Your task to perform on an android device: Open Yahoo.com Image 0: 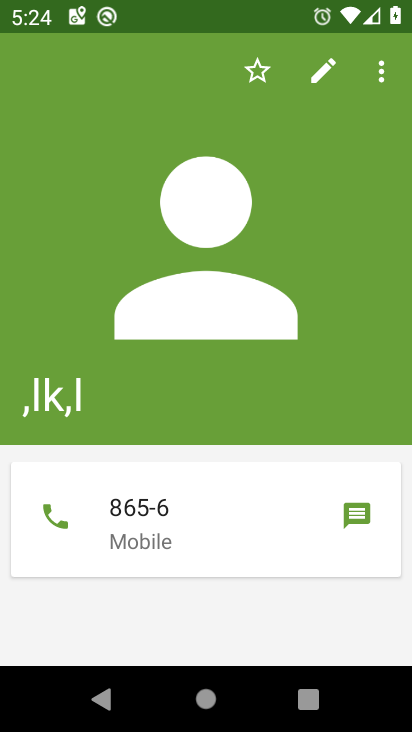
Step 0: press home button
Your task to perform on an android device: Open Yahoo.com Image 1: 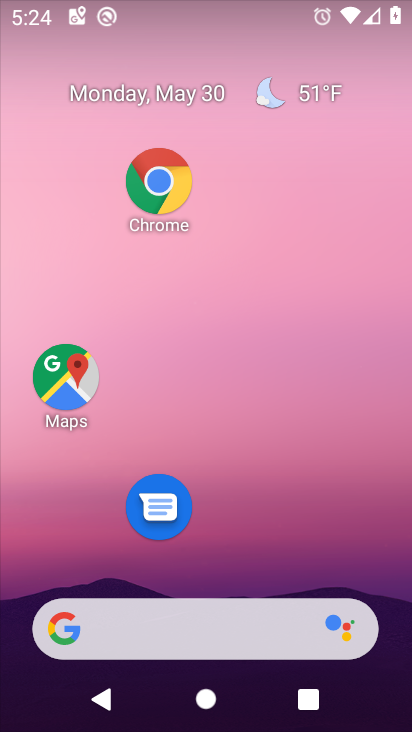
Step 1: drag from (262, 507) to (231, 61)
Your task to perform on an android device: Open Yahoo.com Image 2: 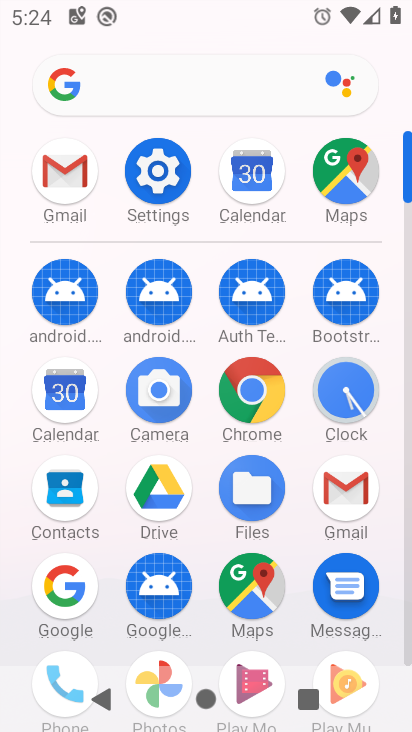
Step 2: click (227, 406)
Your task to perform on an android device: Open Yahoo.com Image 3: 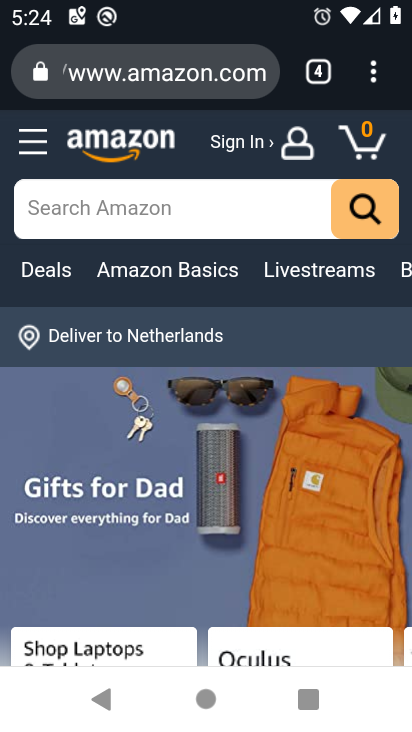
Step 3: click (199, 71)
Your task to perform on an android device: Open Yahoo.com Image 4: 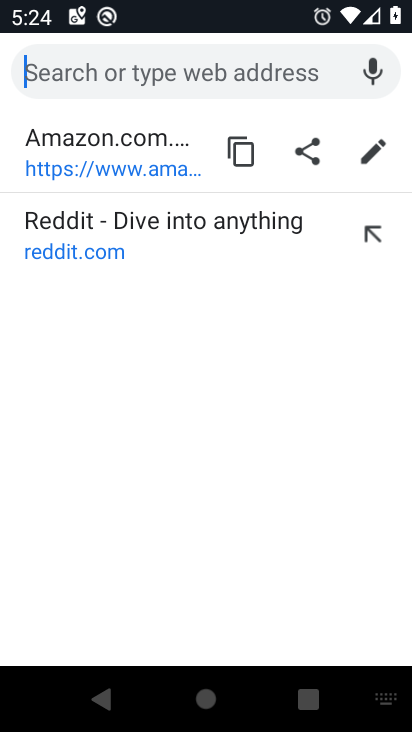
Step 4: type " Yahoo.com"
Your task to perform on an android device: Open Yahoo.com Image 5: 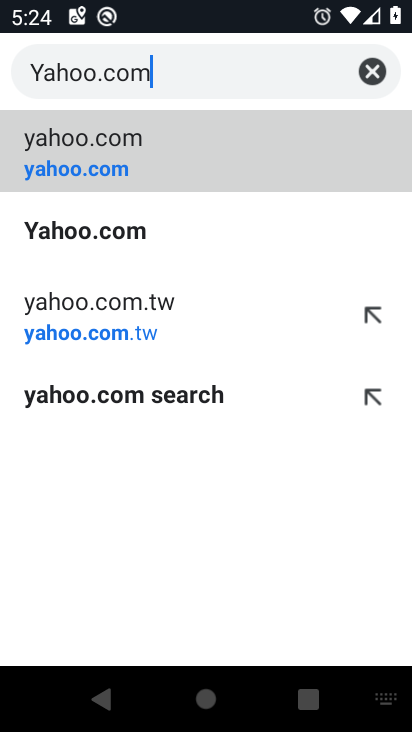
Step 5: click (62, 145)
Your task to perform on an android device: Open Yahoo.com Image 6: 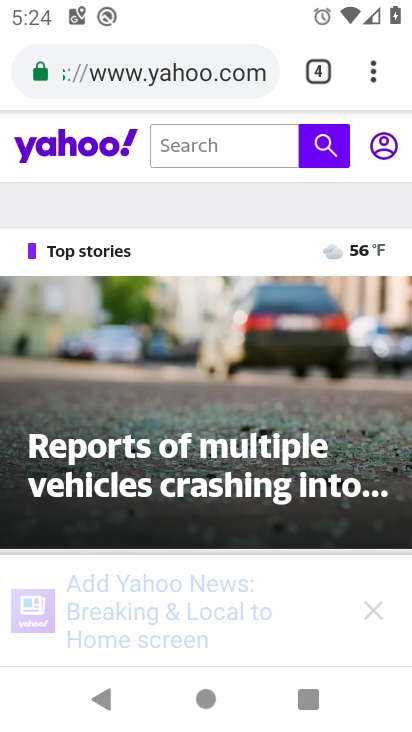
Step 6: task complete